Your task to perform on an android device: View the shopping cart on newegg. Image 0: 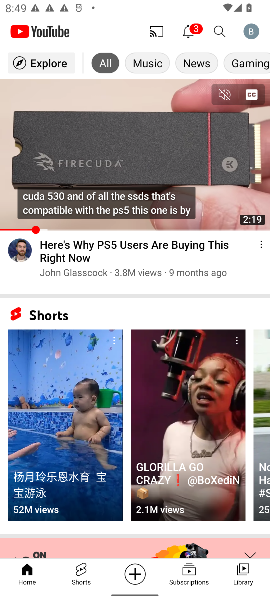
Step 0: press home button
Your task to perform on an android device: View the shopping cart on newegg. Image 1: 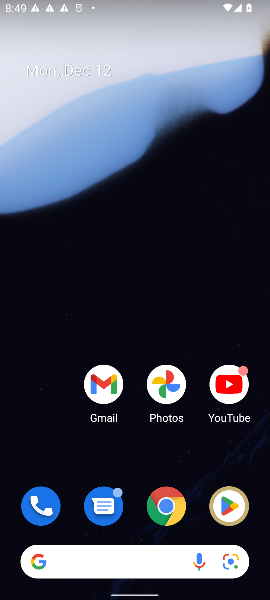
Step 1: click (116, 579)
Your task to perform on an android device: View the shopping cart on newegg. Image 2: 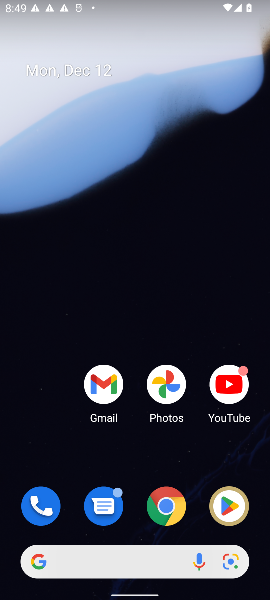
Step 2: click (117, 575)
Your task to perform on an android device: View the shopping cart on newegg. Image 3: 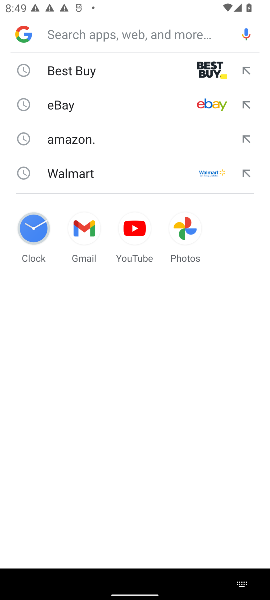
Step 3: type "newegg"
Your task to perform on an android device: View the shopping cart on newegg. Image 4: 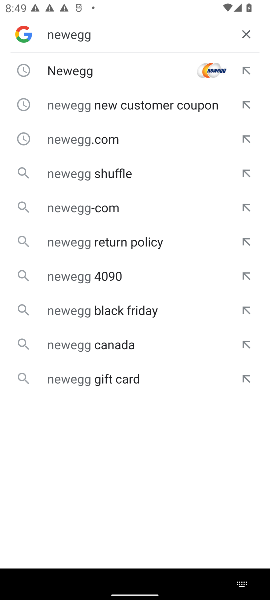
Step 4: click (73, 83)
Your task to perform on an android device: View the shopping cart on newegg. Image 5: 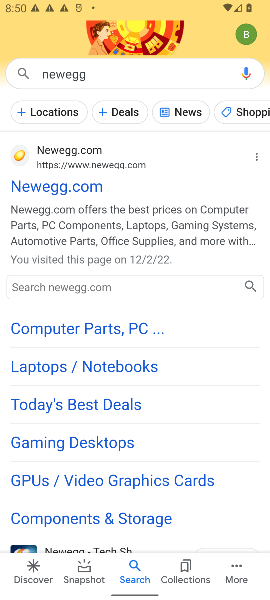
Step 5: click (67, 185)
Your task to perform on an android device: View the shopping cart on newegg. Image 6: 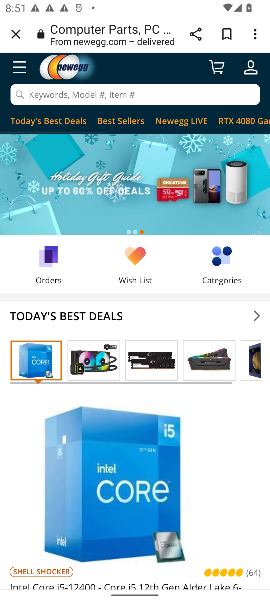
Step 6: task complete